Your task to perform on an android device: all mails in gmail Image 0: 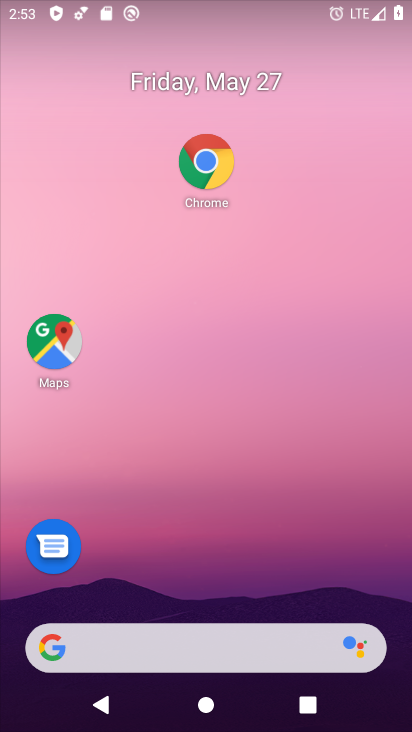
Step 0: drag from (181, 515) to (299, 169)
Your task to perform on an android device: all mails in gmail Image 1: 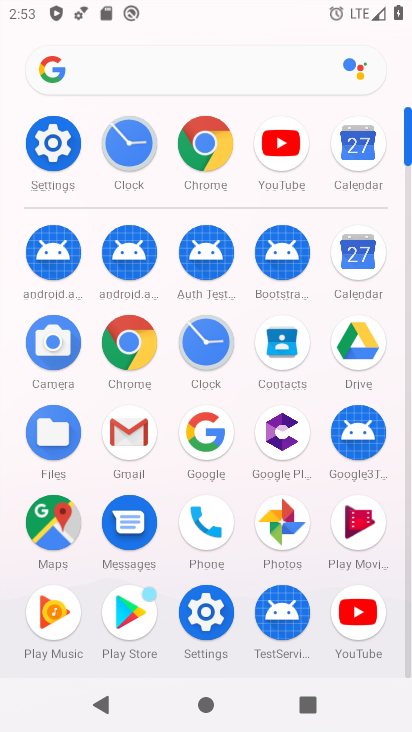
Step 1: click (130, 450)
Your task to perform on an android device: all mails in gmail Image 2: 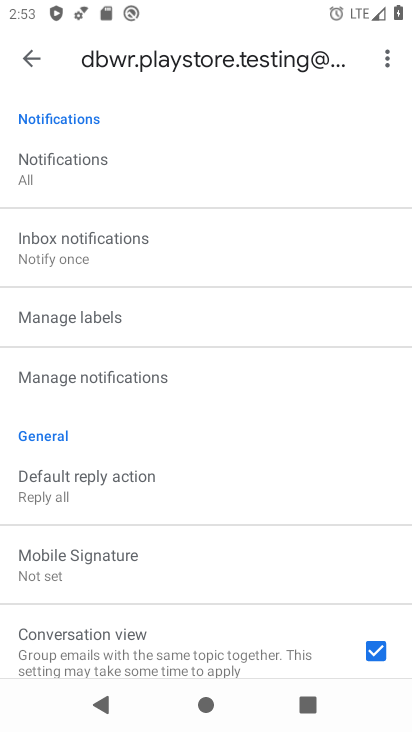
Step 2: click (20, 55)
Your task to perform on an android device: all mails in gmail Image 3: 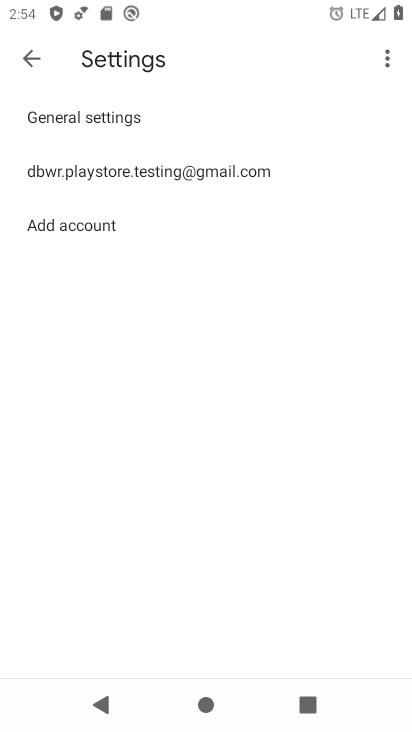
Step 3: click (30, 56)
Your task to perform on an android device: all mails in gmail Image 4: 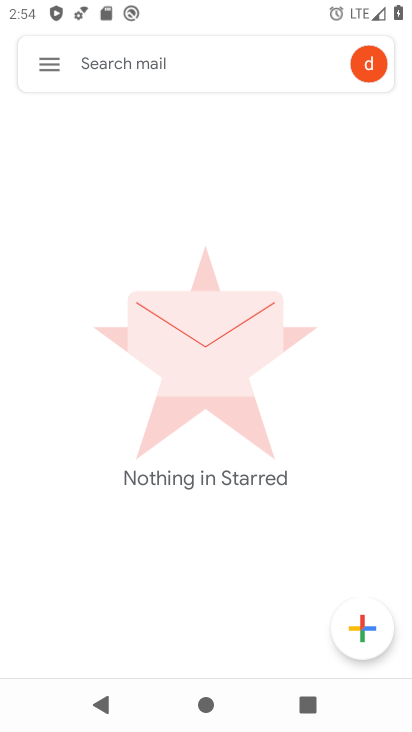
Step 4: click (36, 61)
Your task to perform on an android device: all mails in gmail Image 5: 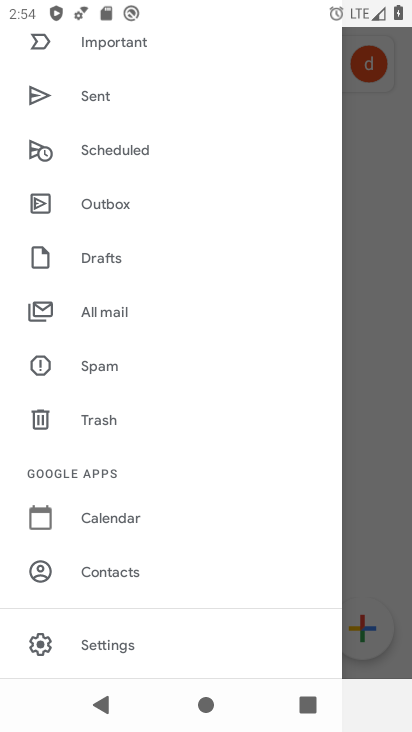
Step 5: drag from (192, 154) to (209, 617)
Your task to perform on an android device: all mails in gmail Image 6: 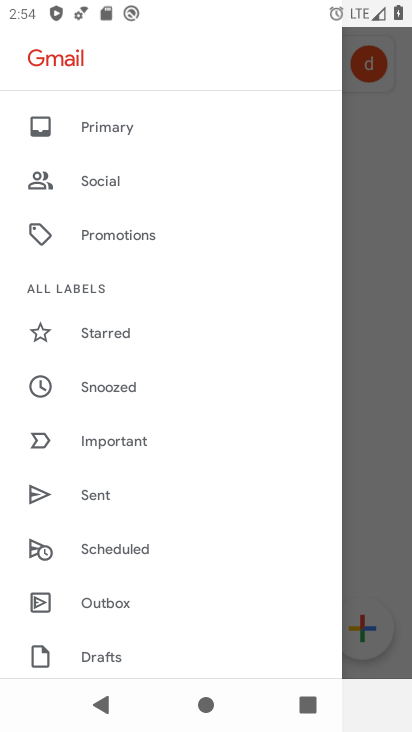
Step 6: drag from (123, 128) to (110, 529)
Your task to perform on an android device: all mails in gmail Image 7: 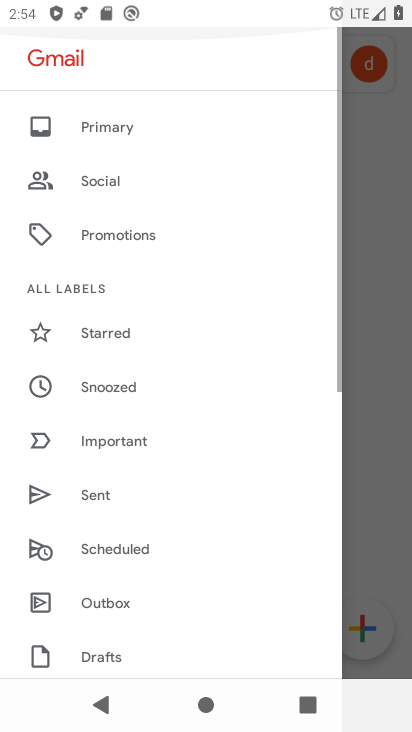
Step 7: drag from (178, 163) to (187, 124)
Your task to perform on an android device: all mails in gmail Image 8: 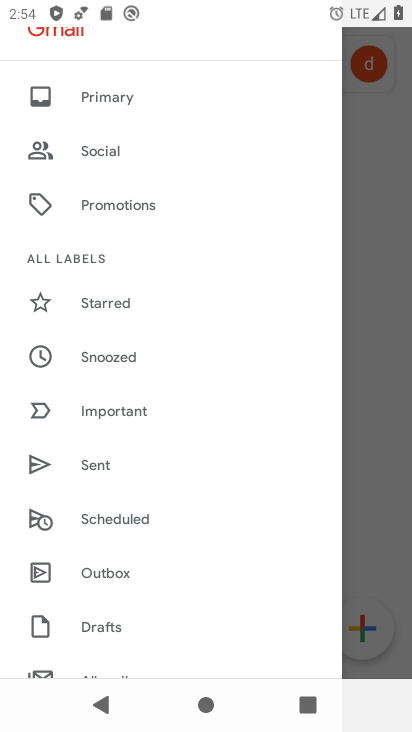
Step 8: drag from (108, 621) to (199, 227)
Your task to perform on an android device: all mails in gmail Image 9: 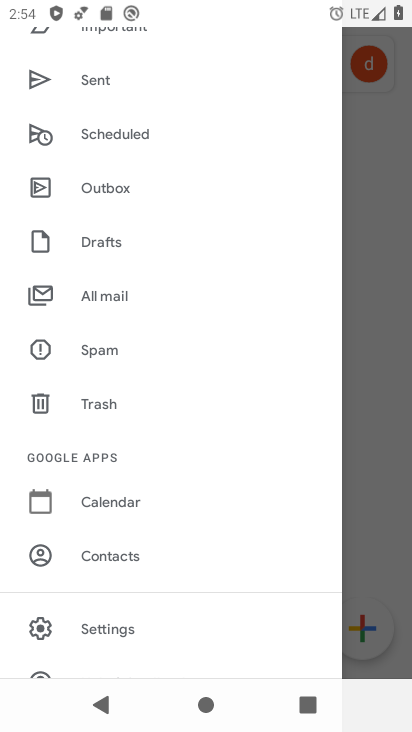
Step 9: click (93, 290)
Your task to perform on an android device: all mails in gmail Image 10: 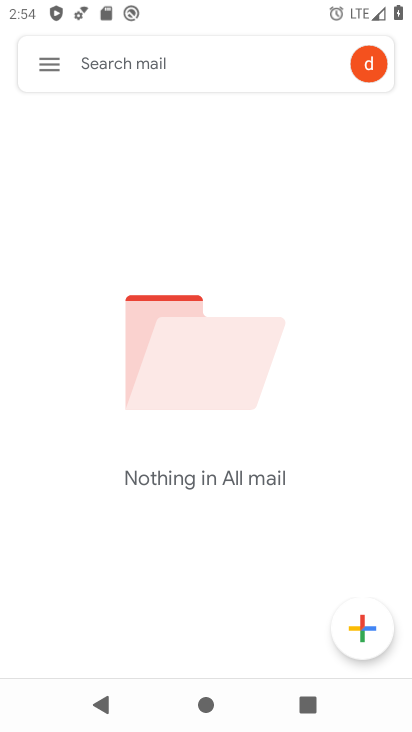
Step 10: task complete